Your task to perform on an android device: change the clock display to show seconds Image 0: 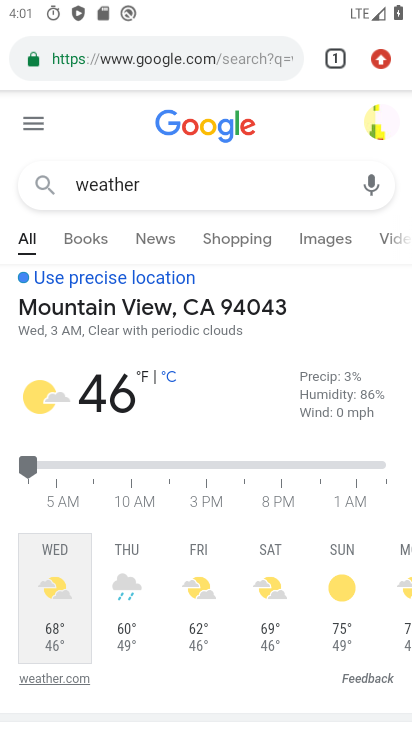
Step 0: press home button
Your task to perform on an android device: change the clock display to show seconds Image 1: 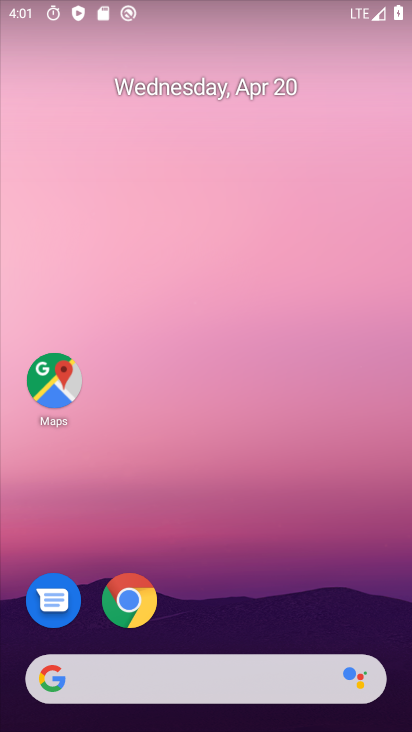
Step 1: drag from (248, 557) to (142, 103)
Your task to perform on an android device: change the clock display to show seconds Image 2: 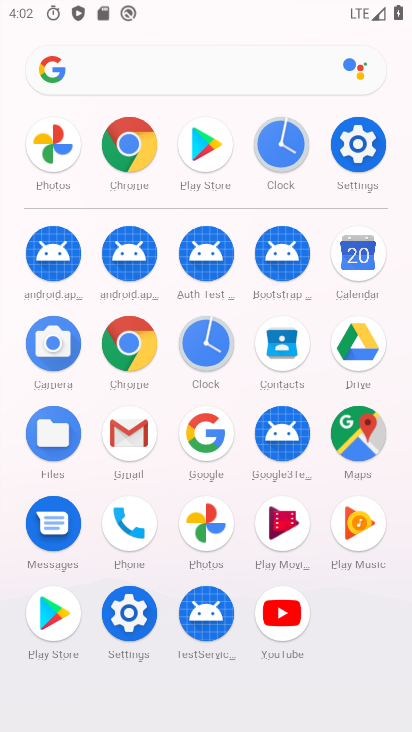
Step 2: click (206, 340)
Your task to perform on an android device: change the clock display to show seconds Image 3: 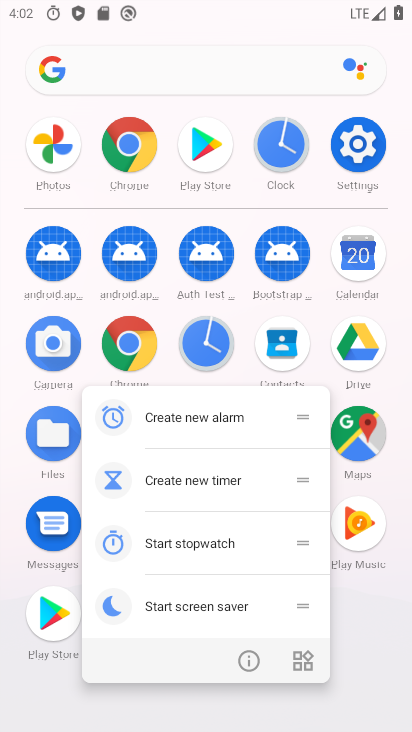
Step 3: click (214, 356)
Your task to perform on an android device: change the clock display to show seconds Image 4: 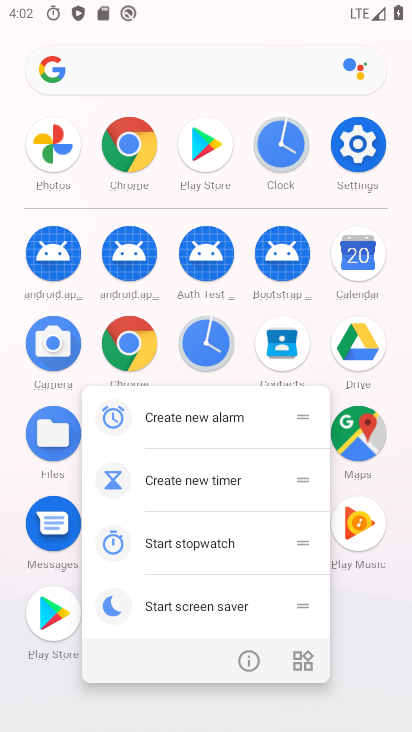
Step 4: click (217, 339)
Your task to perform on an android device: change the clock display to show seconds Image 5: 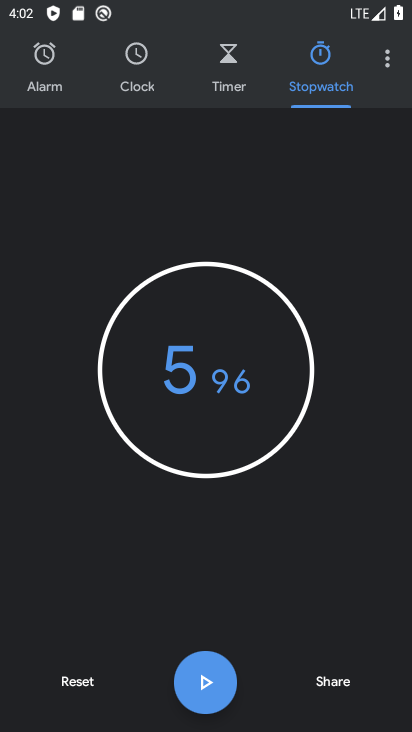
Step 5: click (380, 56)
Your task to perform on an android device: change the clock display to show seconds Image 6: 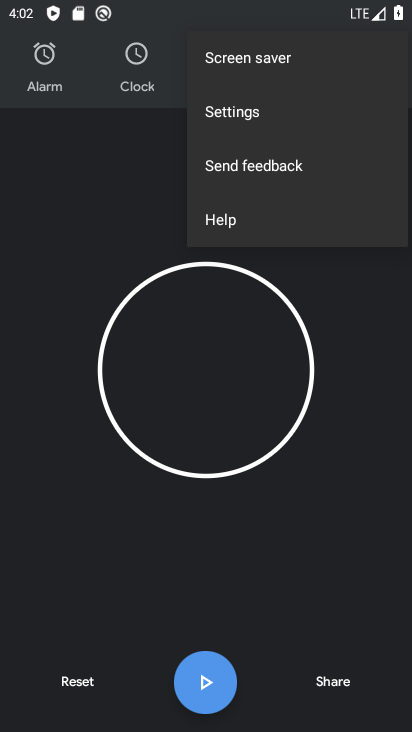
Step 6: click (235, 117)
Your task to perform on an android device: change the clock display to show seconds Image 7: 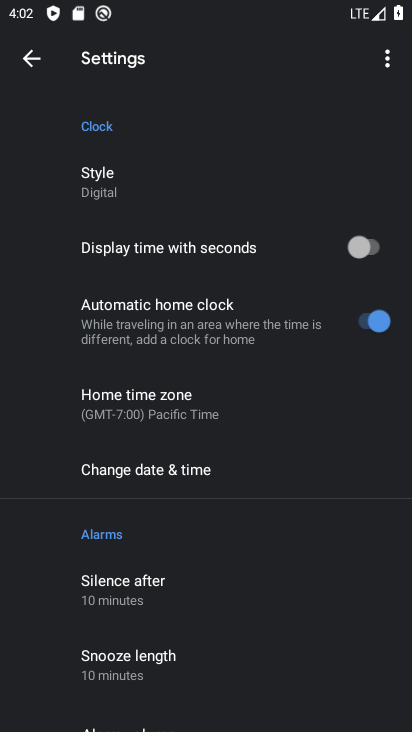
Step 7: click (374, 239)
Your task to perform on an android device: change the clock display to show seconds Image 8: 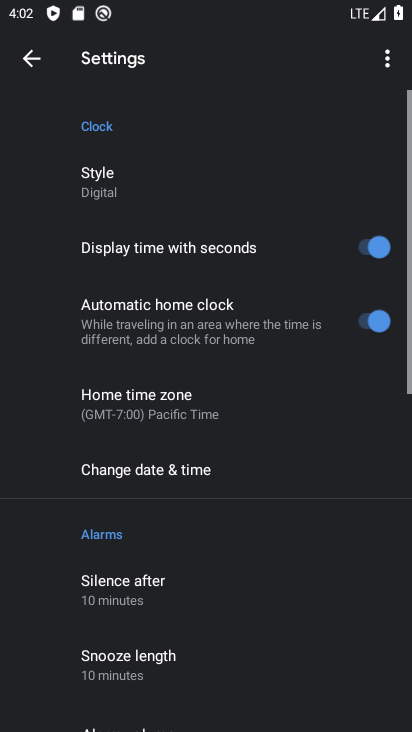
Step 8: task complete